Your task to perform on an android device: Open Chrome and go to the settings page Image 0: 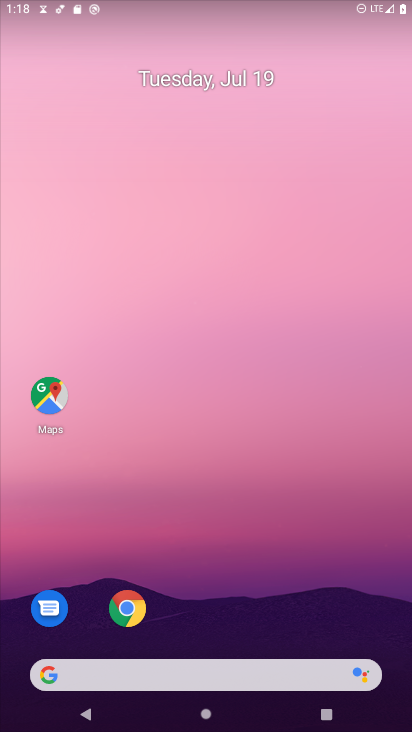
Step 0: drag from (243, 684) to (209, 55)
Your task to perform on an android device: Open Chrome and go to the settings page Image 1: 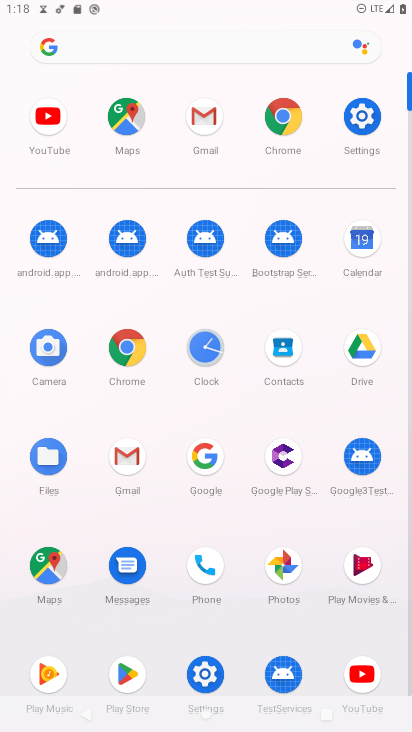
Step 1: click (119, 349)
Your task to perform on an android device: Open Chrome and go to the settings page Image 2: 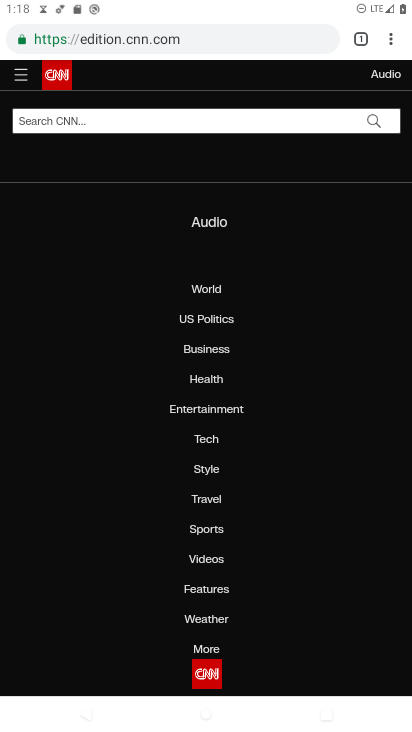
Step 2: task complete